Your task to perform on an android device: check storage Image 0: 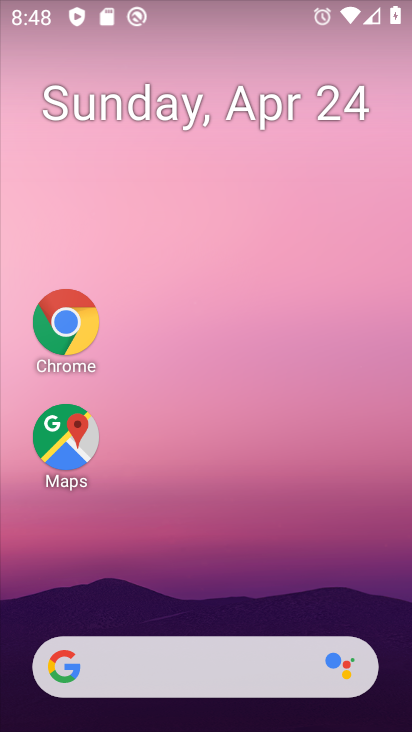
Step 0: drag from (220, 581) to (152, 24)
Your task to perform on an android device: check storage Image 1: 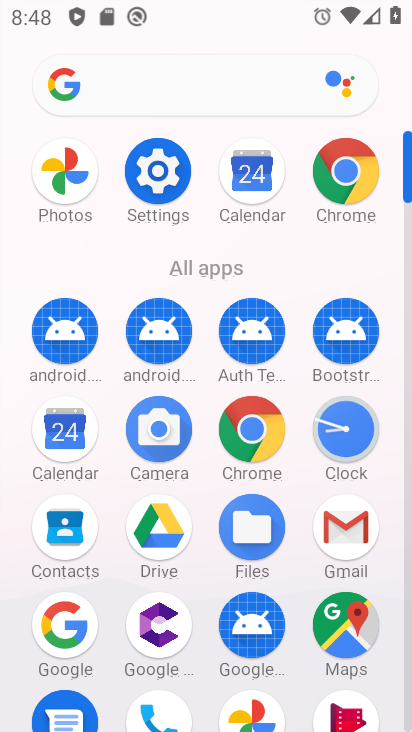
Step 1: click (155, 169)
Your task to perform on an android device: check storage Image 2: 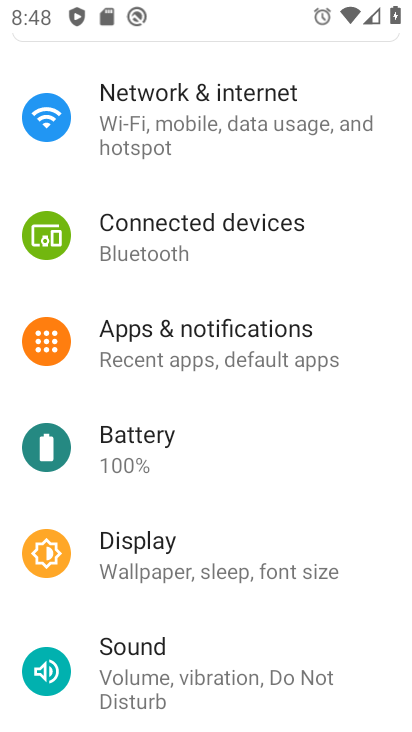
Step 2: drag from (221, 504) to (130, 208)
Your task to perform on an android device: check storage Image 3: 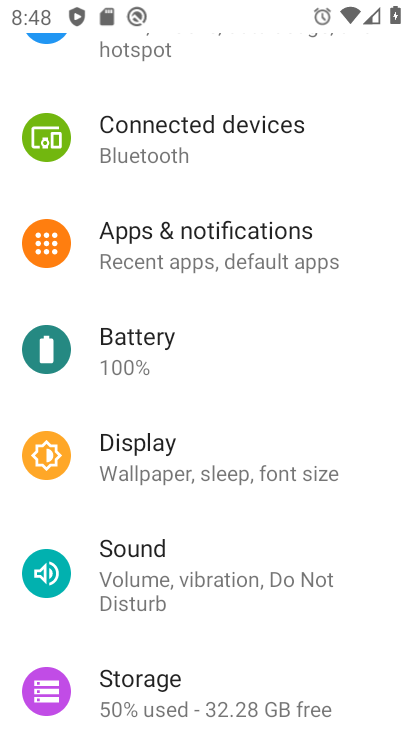
Step 3: click (129, 674)
Your task to perform on an android device: check storage Image 4: 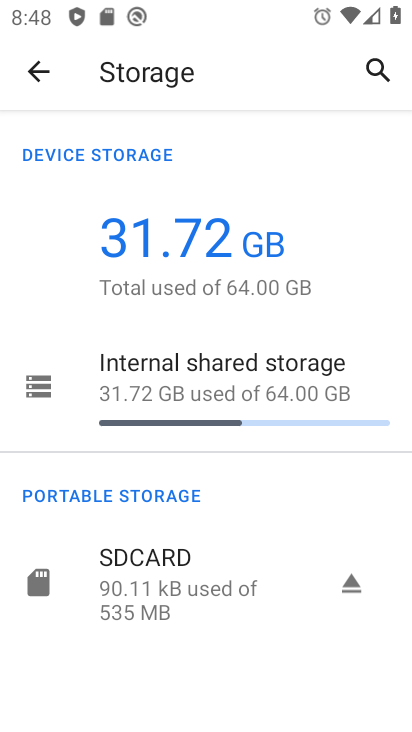
Step 4: task complete